Your task to perform on an android device: Open CNN.com Image 0: 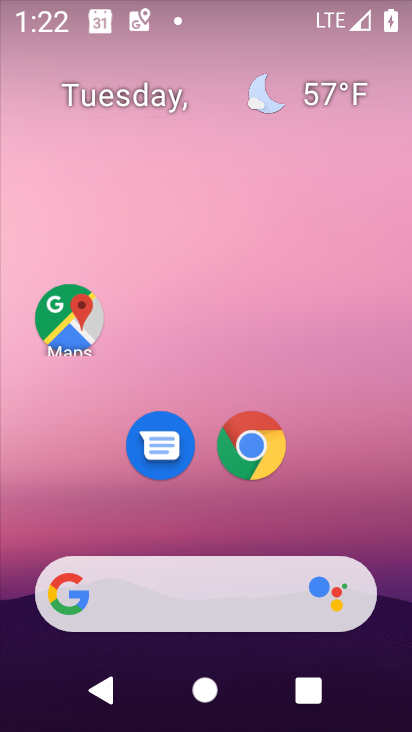
Step 0: drag from (374, 485) to (372, 163)
Your task to perform on an android device: Open CNN.com Image 1: 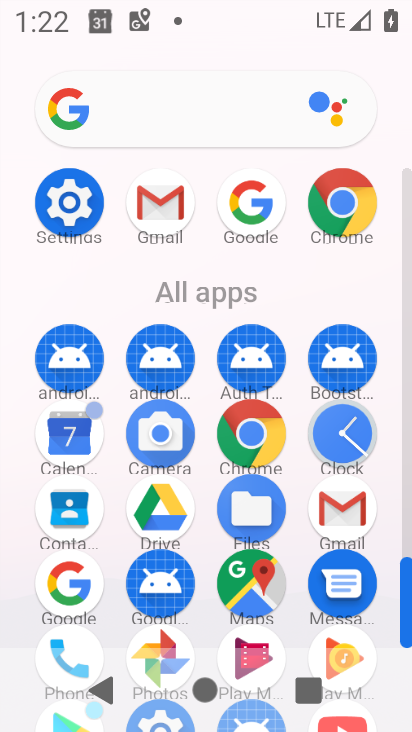
Step 1: click (260, 439)
Your task to perform on an android device: Open CNN.com Image 2: 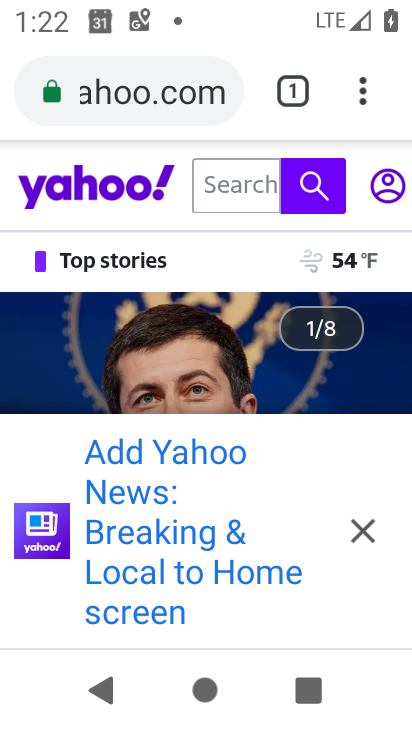
Step 2: click (208, 99)
Your task to perform on an android device: Open CNN.com Image 3: 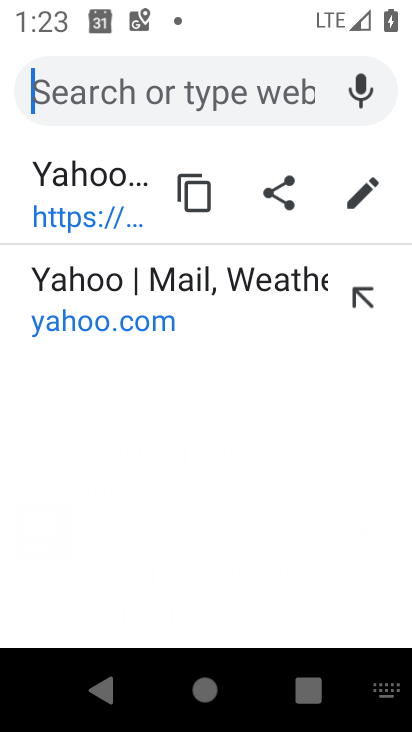
Step 3: type "cnn.com"
Your task to perform on an android device: Open CNN.com Image 4: 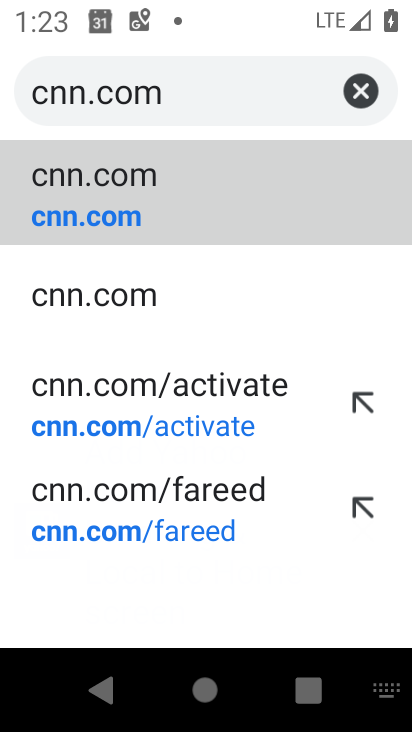
Step 4: click (196, 199)
Your task to perform on an android device: Open CNN.com Image 5: 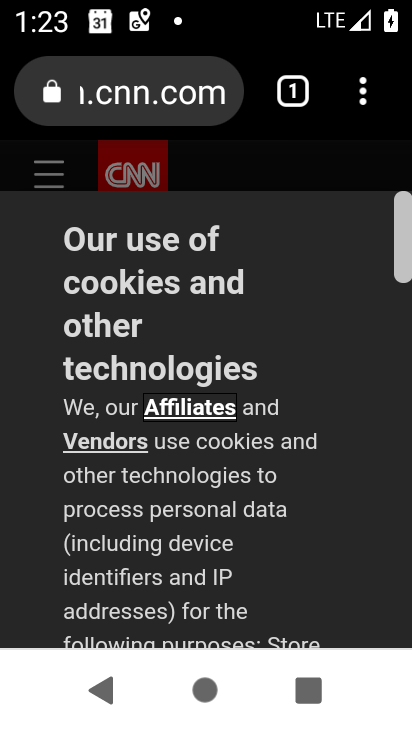
Step 5: task complete